Your task to perform on an android device: Open display settings Image 0: 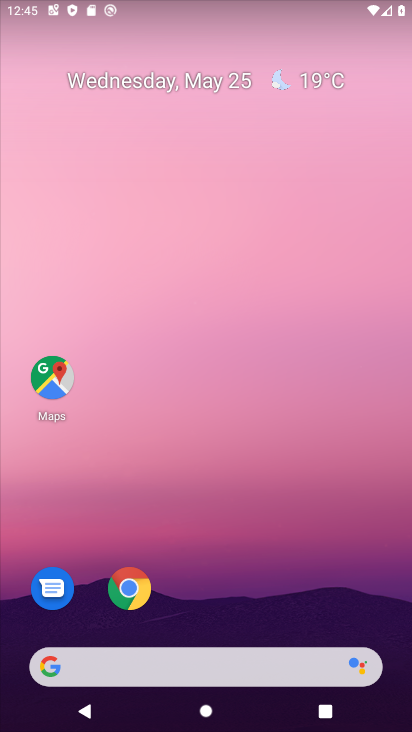
Step 0: drag from (186, 644) to (280, 221)
Your task to perform on an android device: Open display settings Image 1: 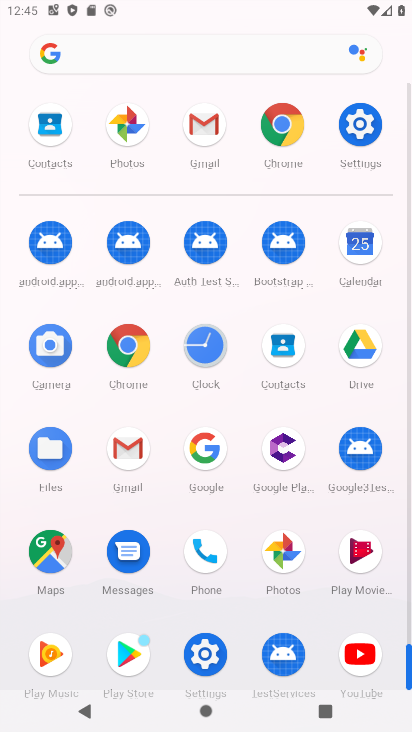
Step 1: click (212, 659)
Your task to perform on an android device: Open display settings Image 2: 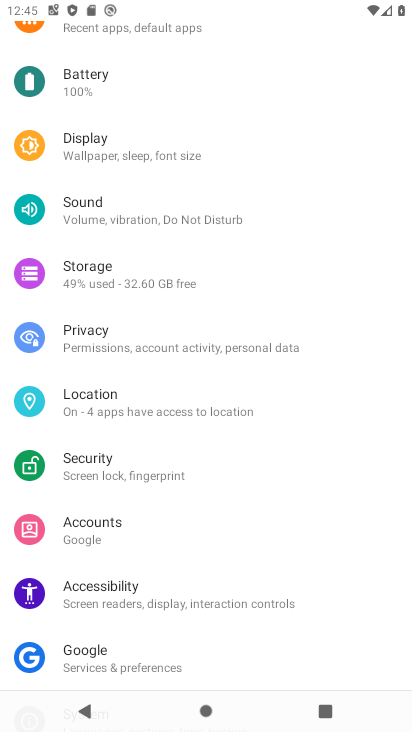
Step 2: click (209, 175)
Your task to perform on an android device: Open display settings Image 3: 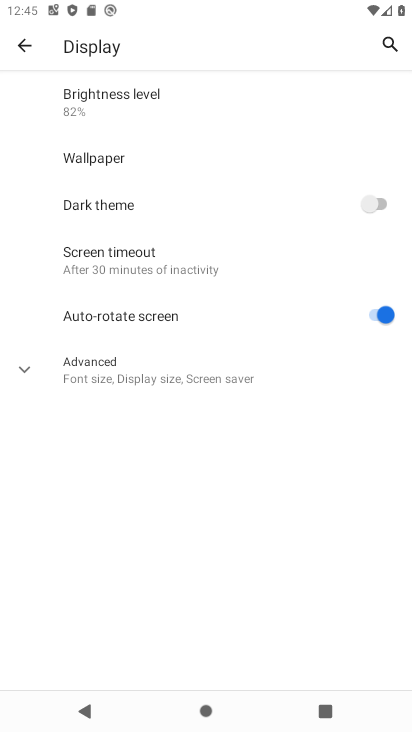
Step 3: task complete